Your task to perform on an android device: turn on priority inbox in the gmail app Image 0: 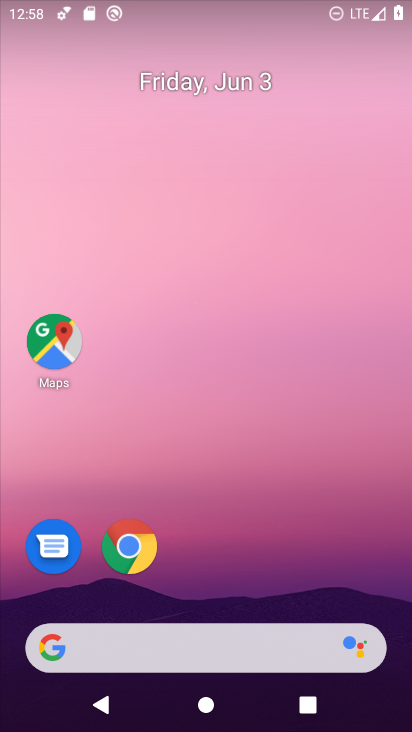
Step 0: drag from (261, 544) to (227, 88)
Your task to perform on an android device: turn on priority inbox in the gmail app Image 1: 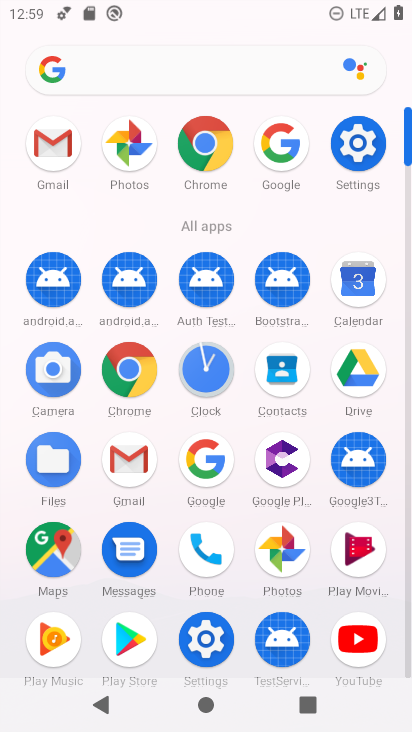
Step 1: click (55, 137)
Your task to perform on an android device: turn on priority inbox in the gmail app Image 2: 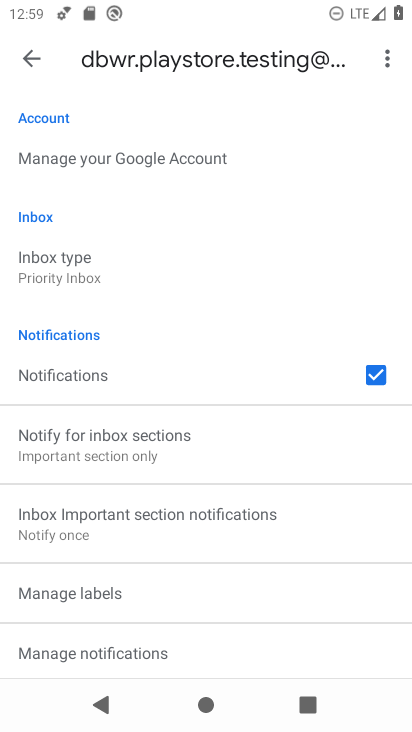
Step 2: click (85, 272)
Your task to perform on an android device: turn on priority inbox in the gmail app Image 3: 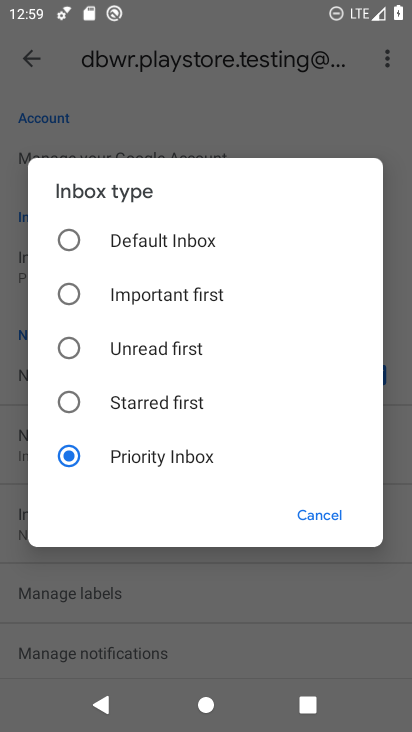
Step 3: click (70, 457)
Your task to perform on an android device: turn on priority inbox in the gmail app Image 4: 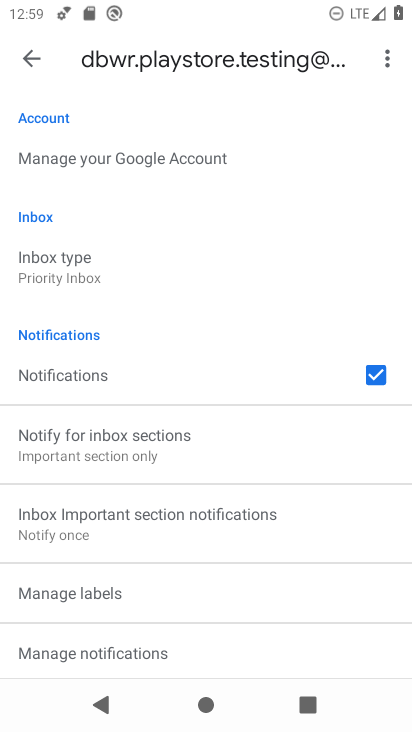
Step 4: task complete